Your task to perform on an android device: Is it going to rain this weekend? Image 0: 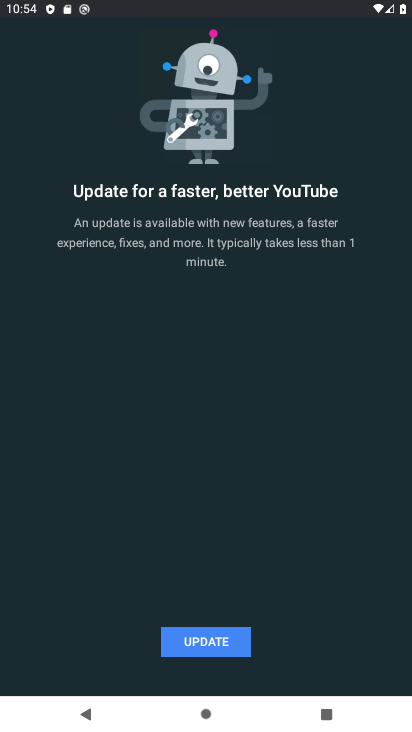
Step 0: press home button
Your task to perform on an android device: Is it going to rain this weekend? Image 1: 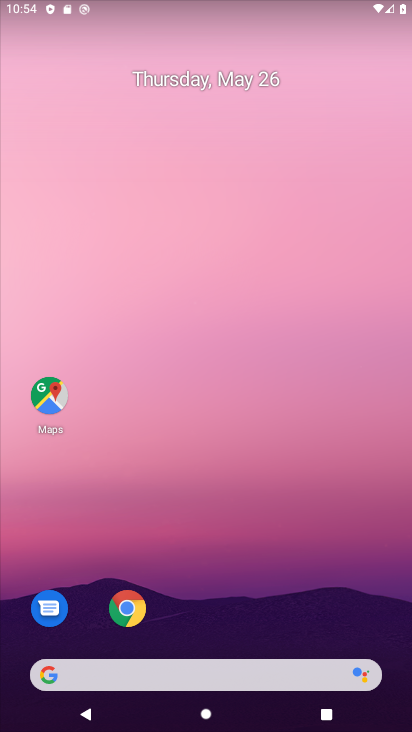
Step 1: drag from (306, 553) to (285, 40)
Your task to perform on an android device: Is it going to rain this weekend? Image 2: 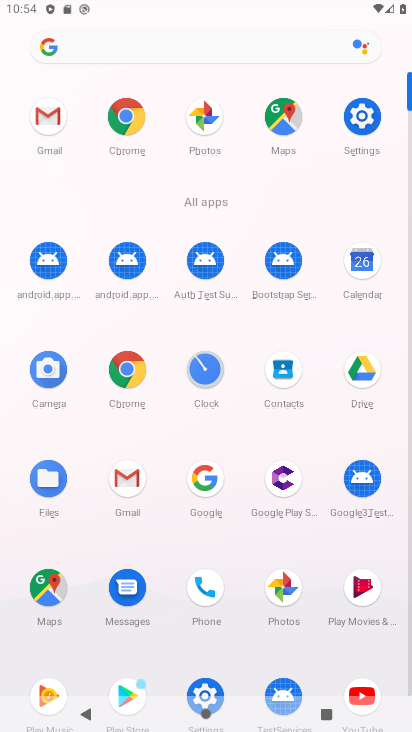
Step 2: click (119, 114)
Your task to perform on an android device: Is it going to rain this weekend? Image 3: 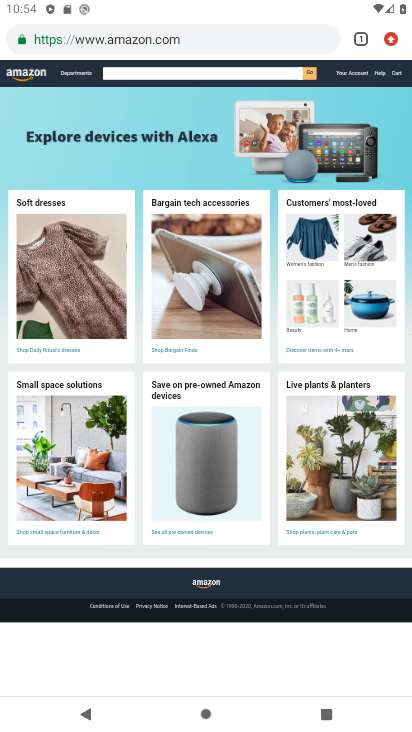
Step 3: click (200, 35)
Your task to perform on an android device: Is it going to rain this weekend? Image 4: 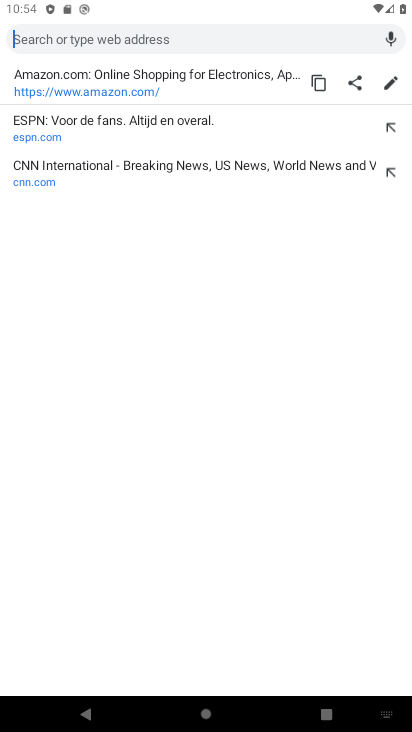
Step 4: type "weather"
Your task to perform on an android device: Is it going to rain this weekend? Image 5: 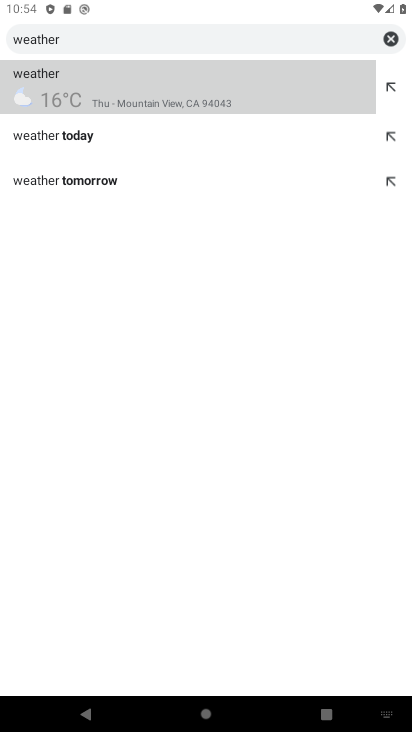
Step 5: click (79, 79)
Your task to perform on an android device: Is it going to rain this weekend? Image 6: 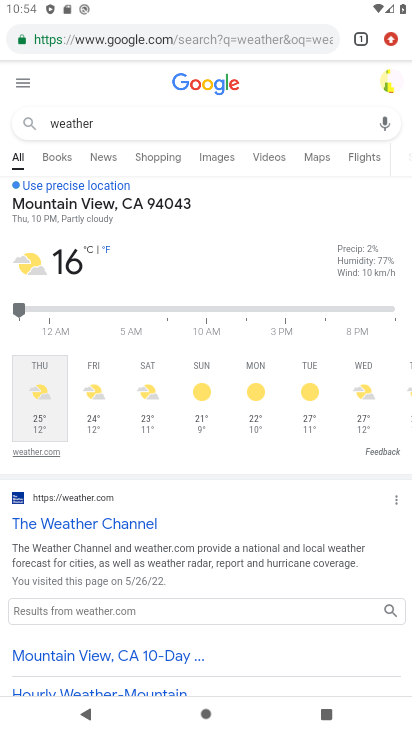
Step 6: task complete